Your task to perform on an android device: What's the weather? Image 0: 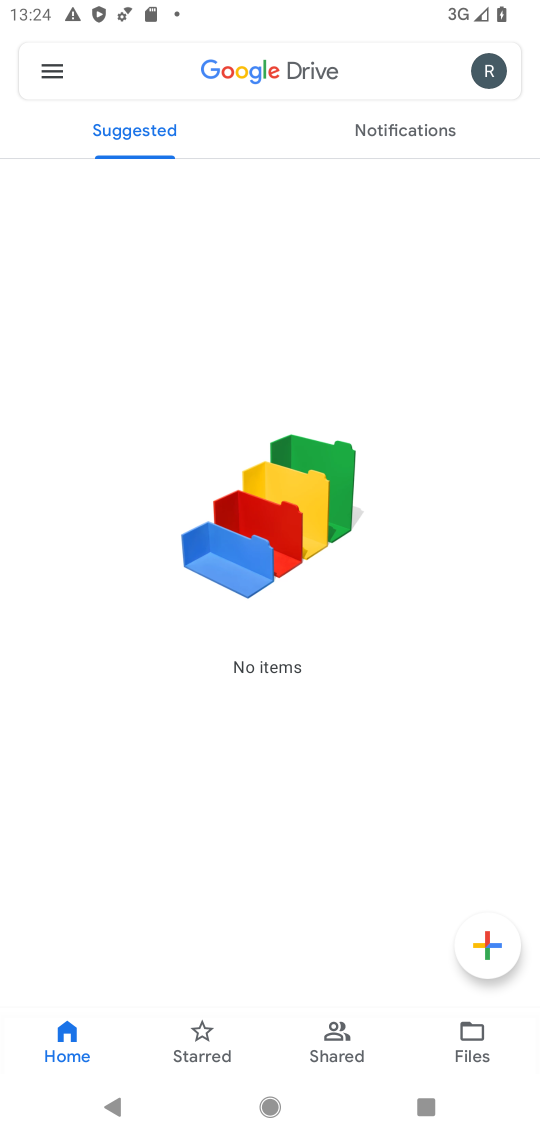
Step 0: press home button
Your task to perform on an android device: What's the weather? Image 1: 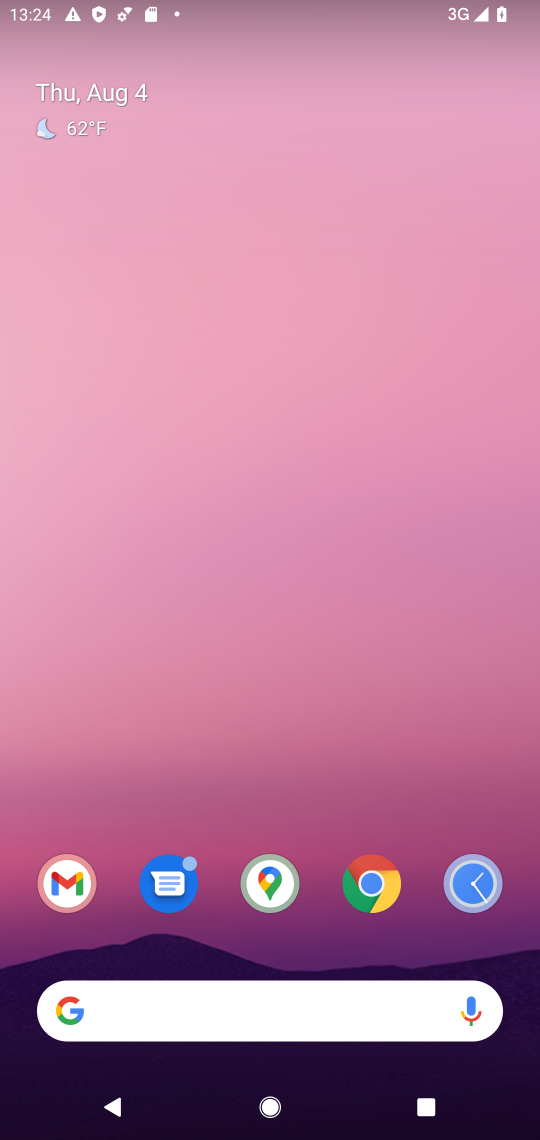
Step 1: drag from (291, 950) to (321, 289)
Your task to perform on an android device: What's the weather? Image 2: 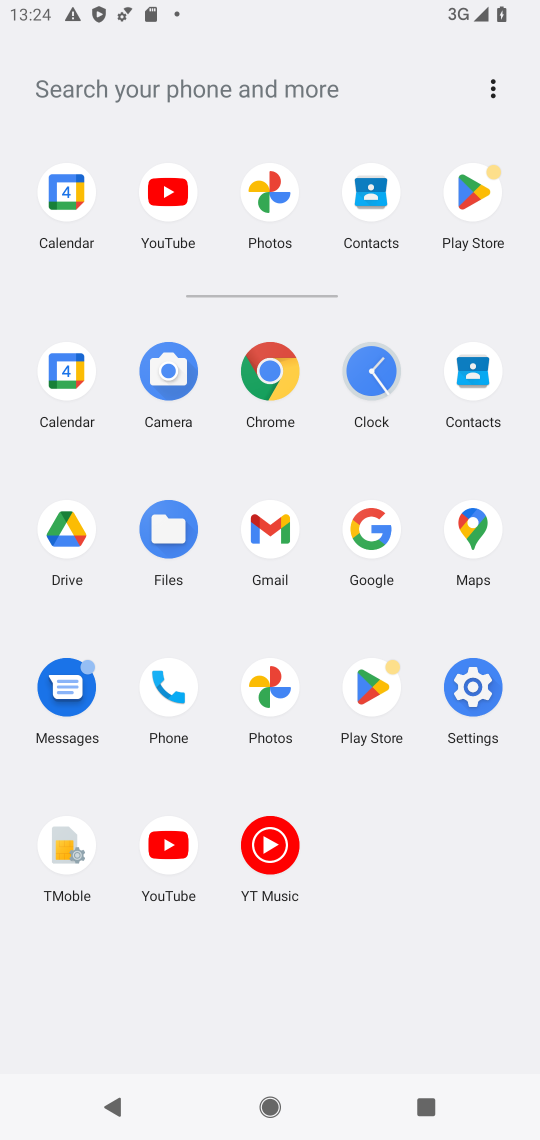
Step 2: click (261, 371)
Your task to perform on an android device: What's the weather? Image 3: 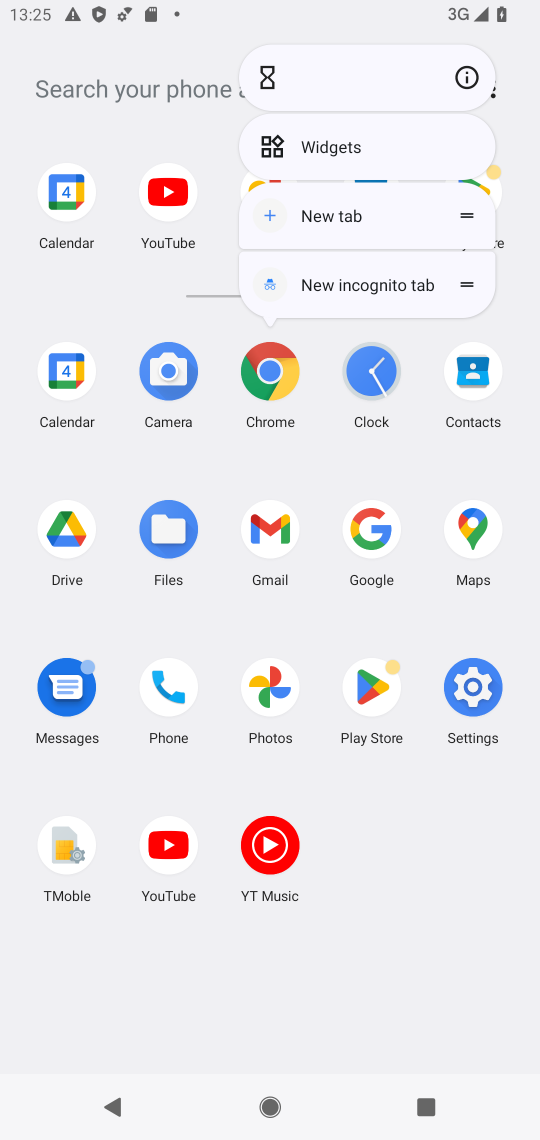
Step 3: click (469, 84)
Your task to perform on an android device: What's the weather? Image 4: 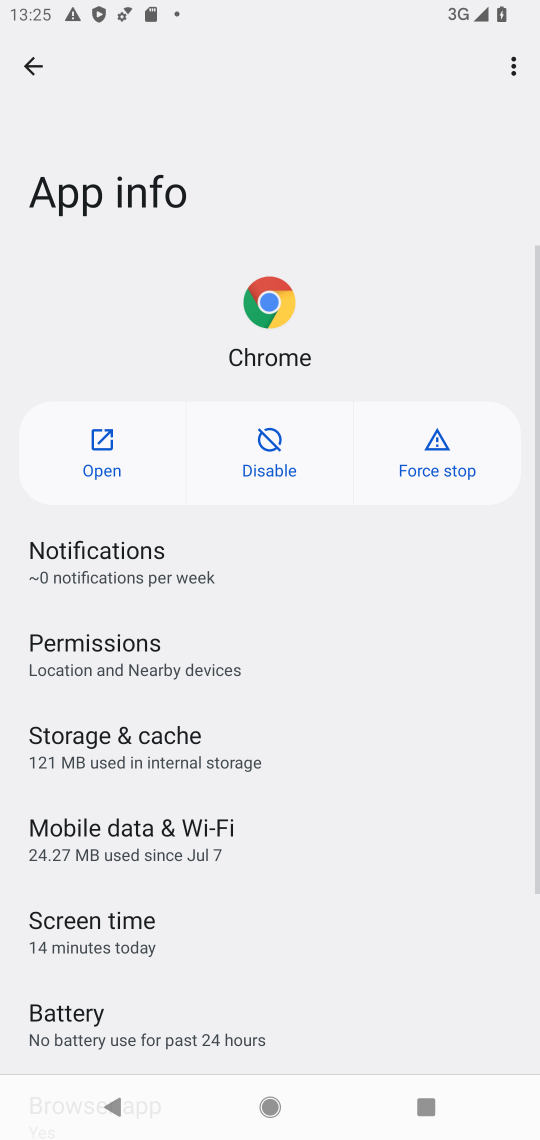
Step 4: click (116, 457)
Your task to perform on an android device: What's the weather? Image 5: 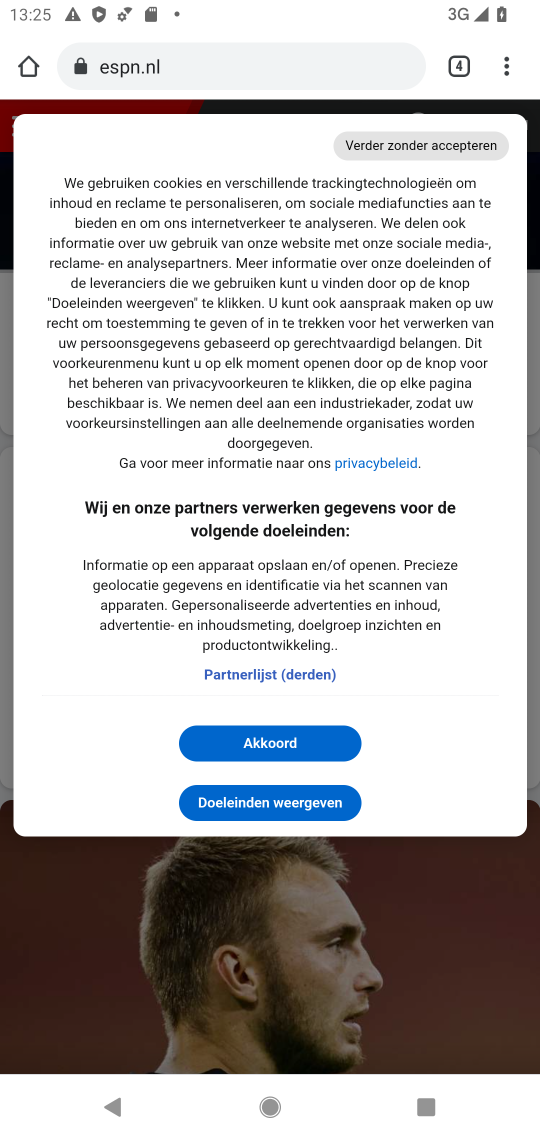
Step 5: click (240, 66)
Your task to perform on an android device: What's the weather? Image 6: 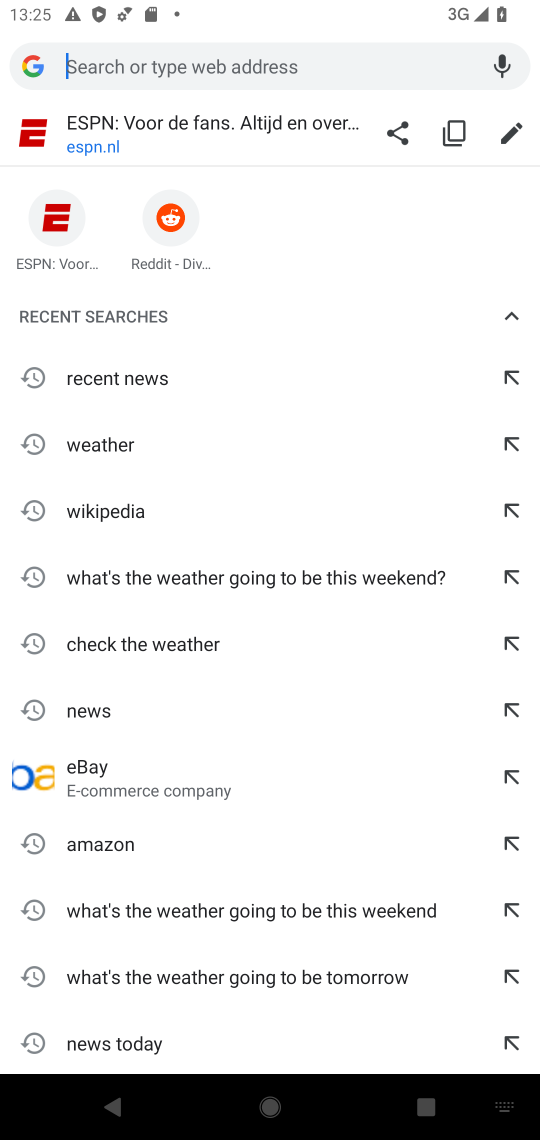
Step 6: type " weather?"
Your task to perform on an android device: What's the weather? Image 7: 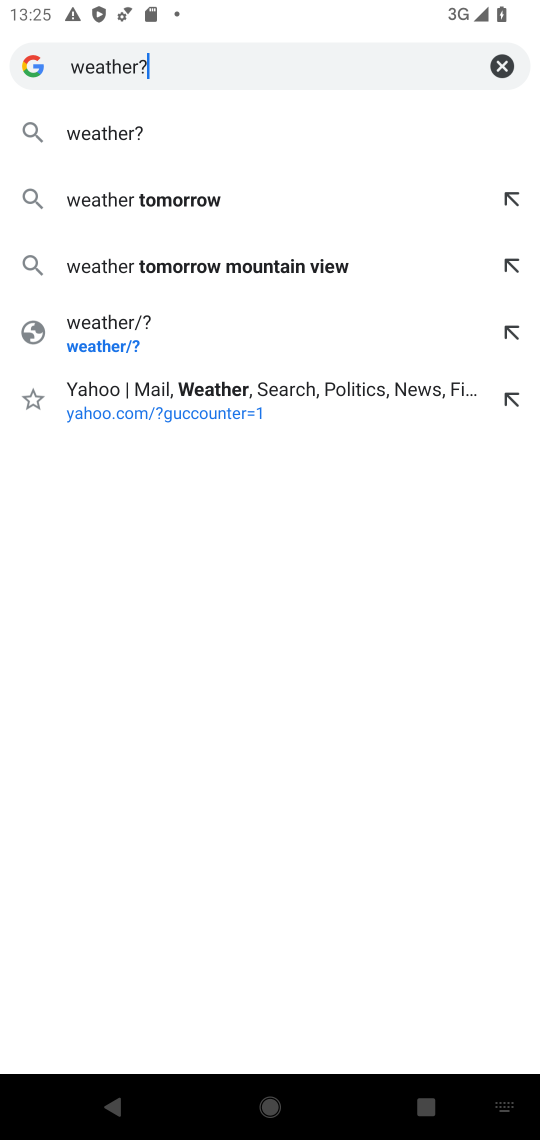
Step 7: click (136, 140)
Your task to perform on an android device: What's the weather? Image 8: 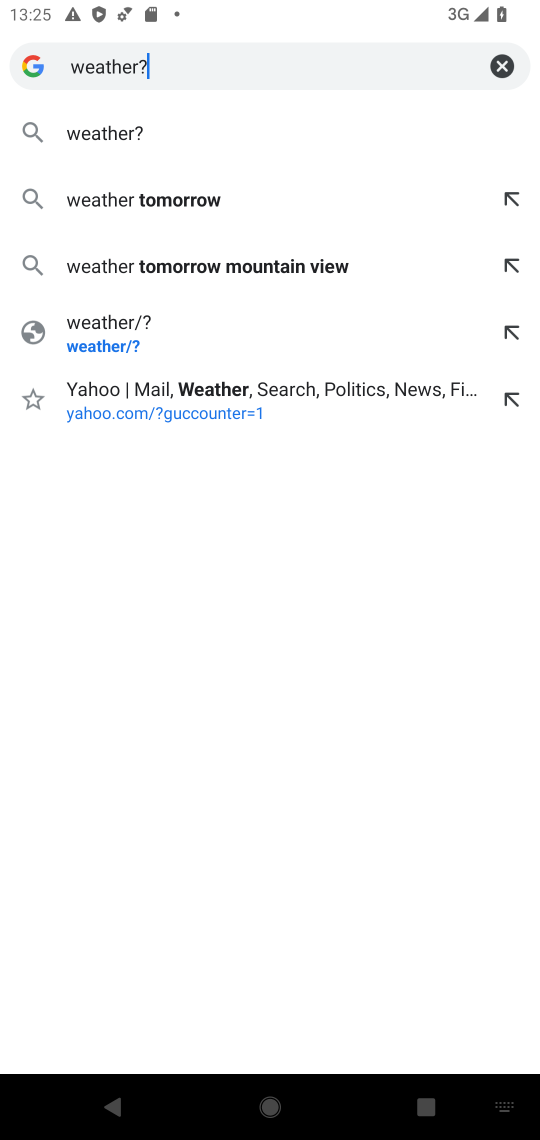
Step 8: click (165, 131)
Your task to perform on an android device: What's the weather? Image 9: 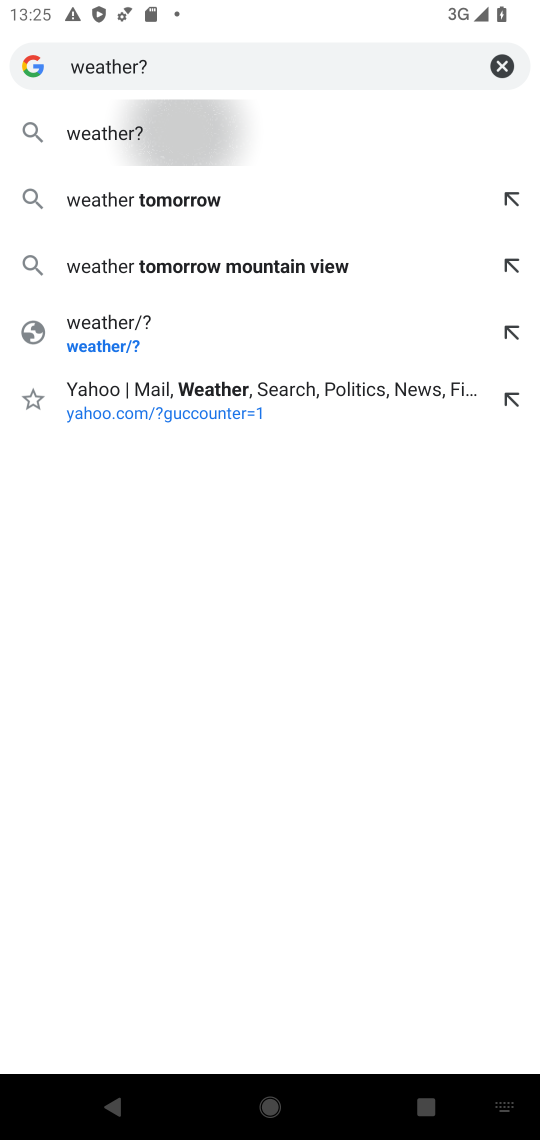
Step 9: click (165, 131)
Your task to perform on an android device: What's the weather? Image 10: 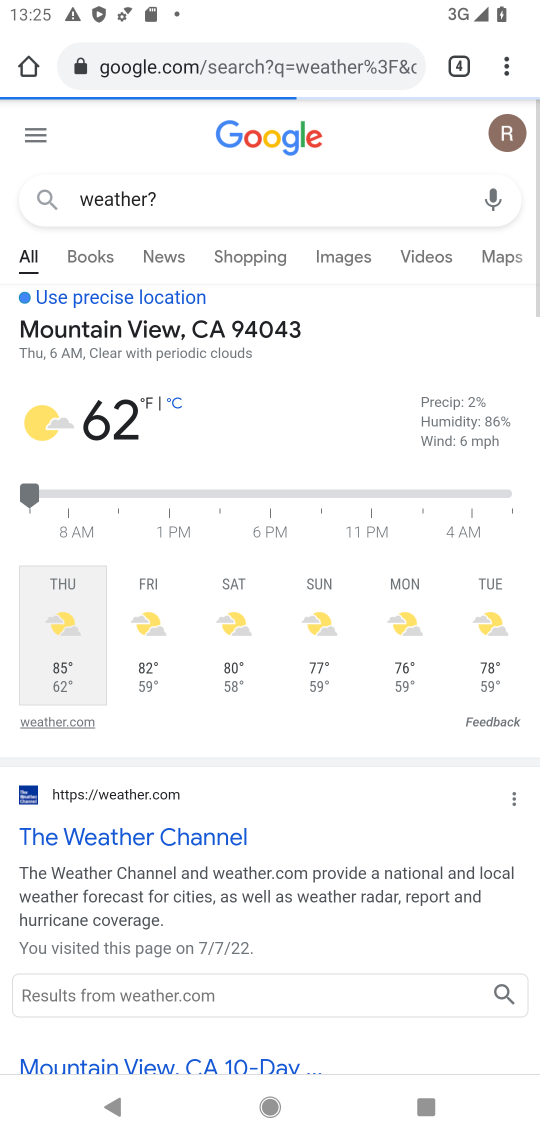
Step 10: task complete